Your task to perform on an android device: open chrome and create a bookmark for the current page Image 0: 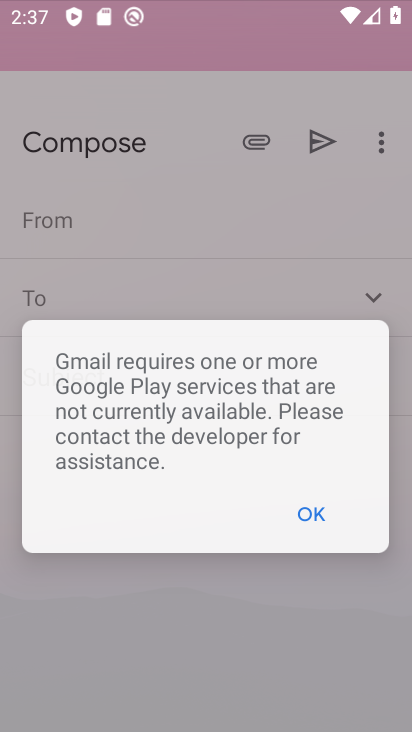
Step 0: click (206, 143)
Your task to perform on an android device: open chrome and create a bookmark for the current page Image 1: 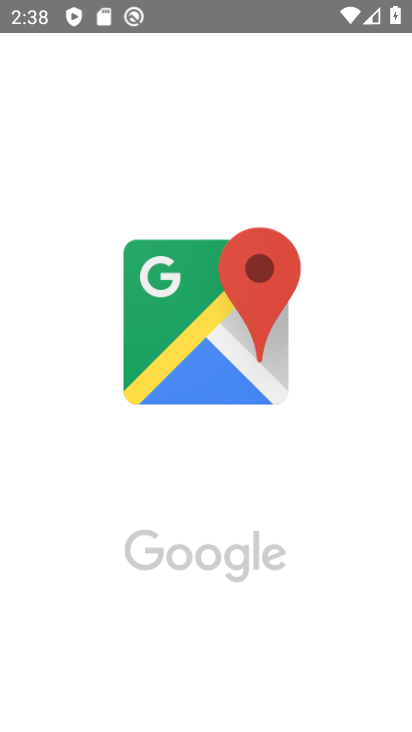
Step 1: press home button
Your task to perform on an android device: open chrome and create a bookmark for the current page Image 2: 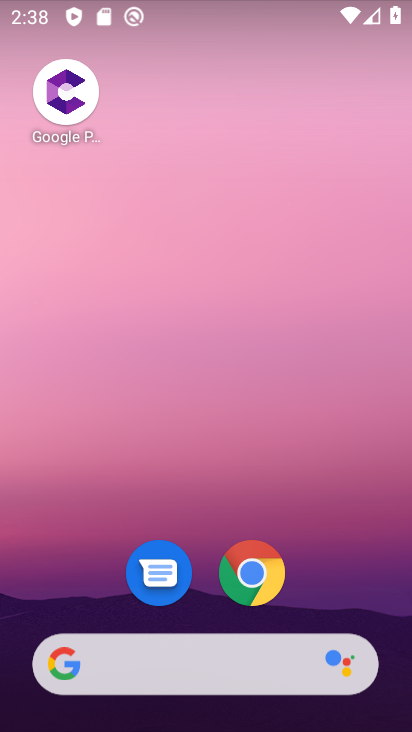
Step 2: click (254, 573)
Your task to perform on an android device: open chrome and create a bookmark for the current page Image 3: 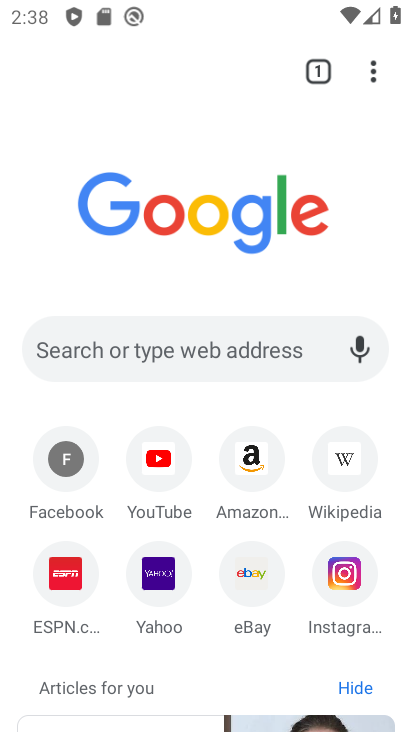
Step 3: click (377, 72)
Your task to perform on an android device: open chrome and create a bookmark for the current page Image 4: 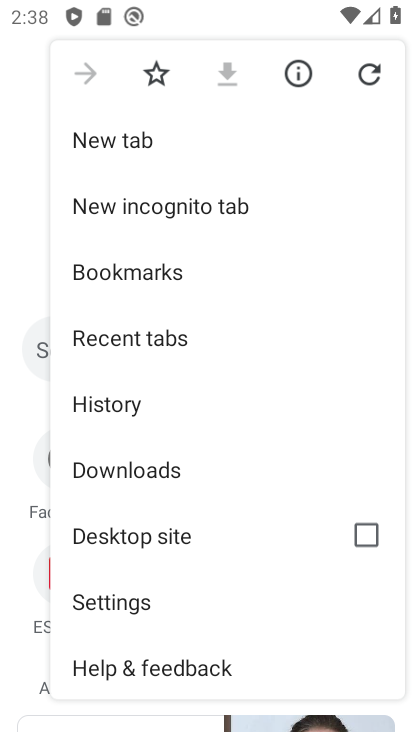
Step 4: click (156, 67)
Your task to perform on an android device: open chrome and create a bookmark for the current page Image 5: 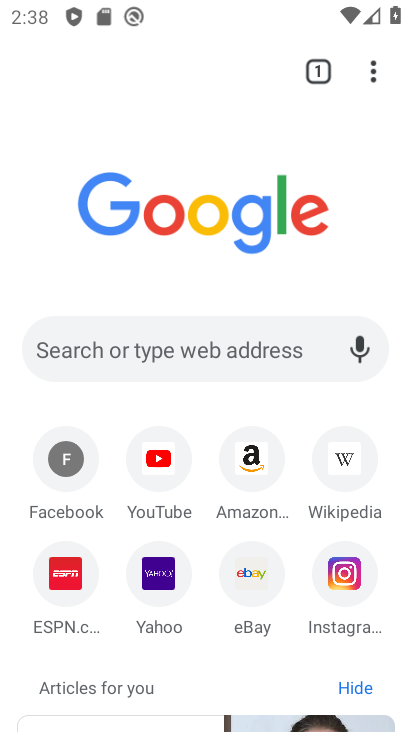
Step 5: task complete